Your task to perform on an android device: turn off wifi Image 0: 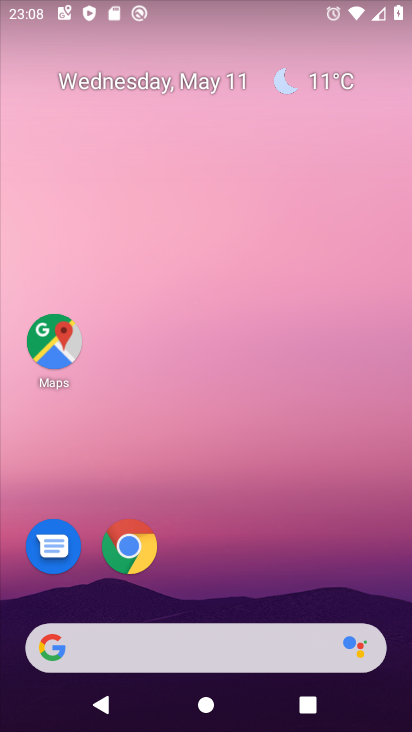
Step 0: drag from (391, 612) to (314, 181)
Your task to perform on an android device: turn off wifi Image 1: 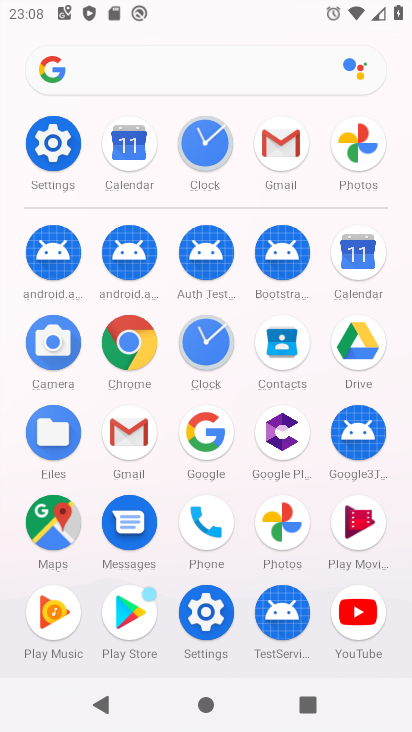
Step 1: click (208, 612)
Your task to perform on an android device: turn off wifi Image 2: 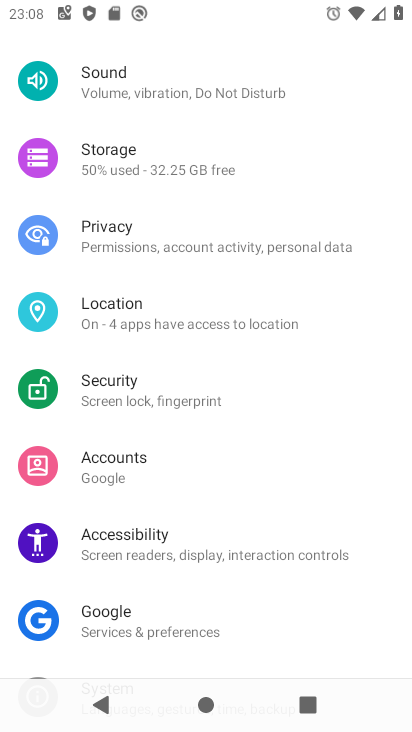
Step 2: drag from (330, 98) to (341, 390)
Your task to perform on an android device: turn off wifi Image 3: 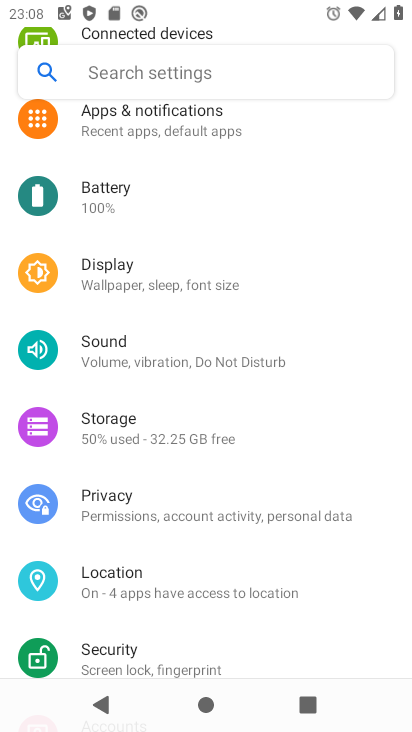
Step 3: drag from (320, 192) to (321, 410)
Your task to perform on an android device: turn off wifi Image 4: 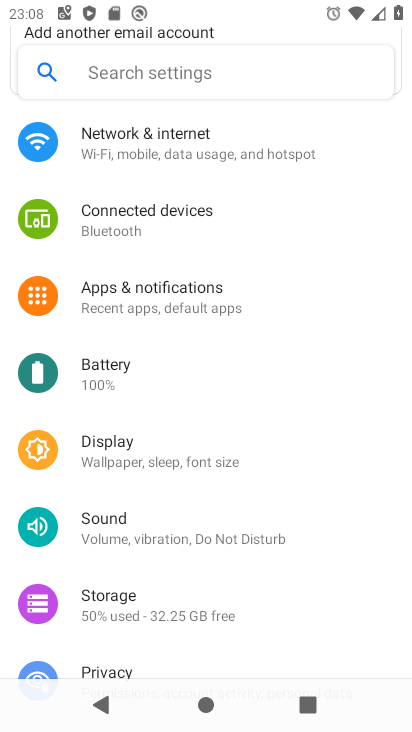
Step 4: click (167, 139)
Your task to perform on an android device: turn off wifi Image 5: 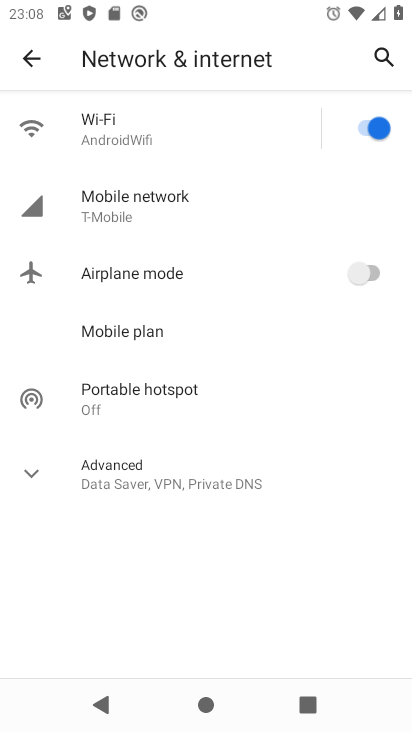
Step 5: click (358, 125)
Your task to perform on an android device: turn off wifi Image 6: 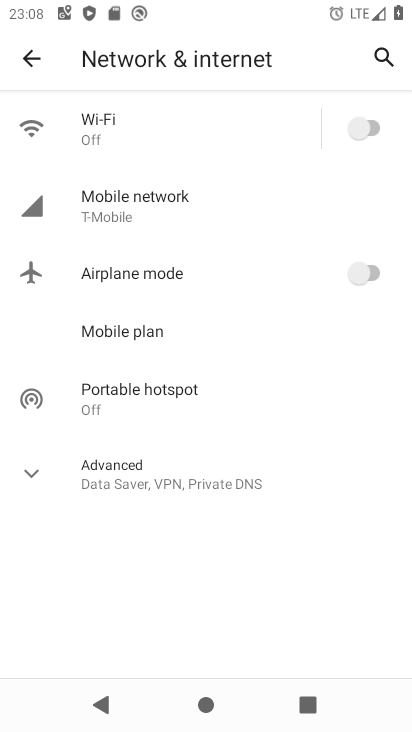
Step 6: task complete